Your task to perform on an android device: turn off notifications in google photos Image 0: 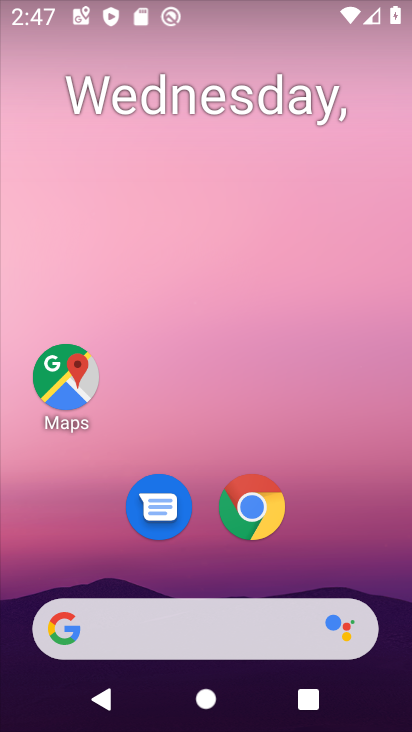
Step 0: drag from (332, 507) to (348, 81)
Your task to perform on an android device: turn off notifications in google photos Image 1: 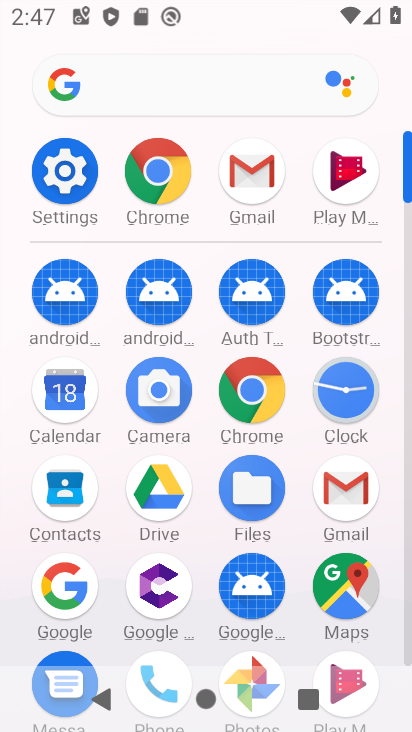
Step 1: drag from (306, 578) to (383, 105)
Your task to perform on an android device: turn off notifications in google photos Image 2: 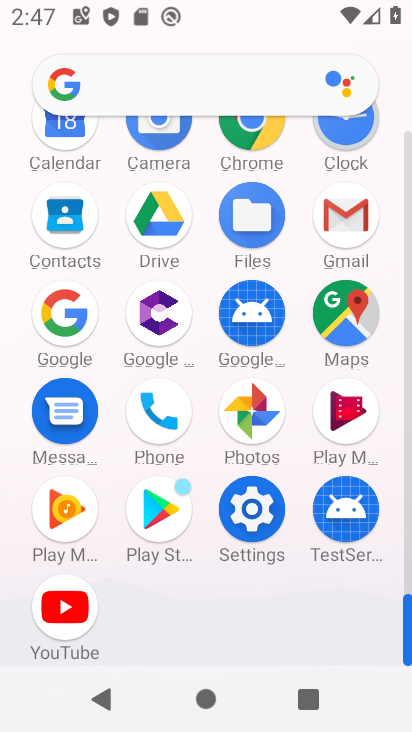
Step 2: click (252, 408)
Your task to perform on an android device: turn off notifications in google photos Image 3: 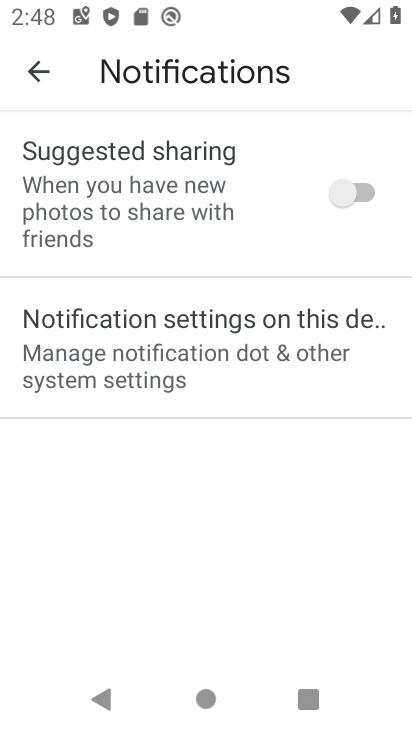
Step 3: task complete